Your task to perform on an android device: Clear all items from cart on ebay. Search for "macbook pro 13 inch" on ebay, select the first entry, add it to the cart, then select checkout. Image 0: 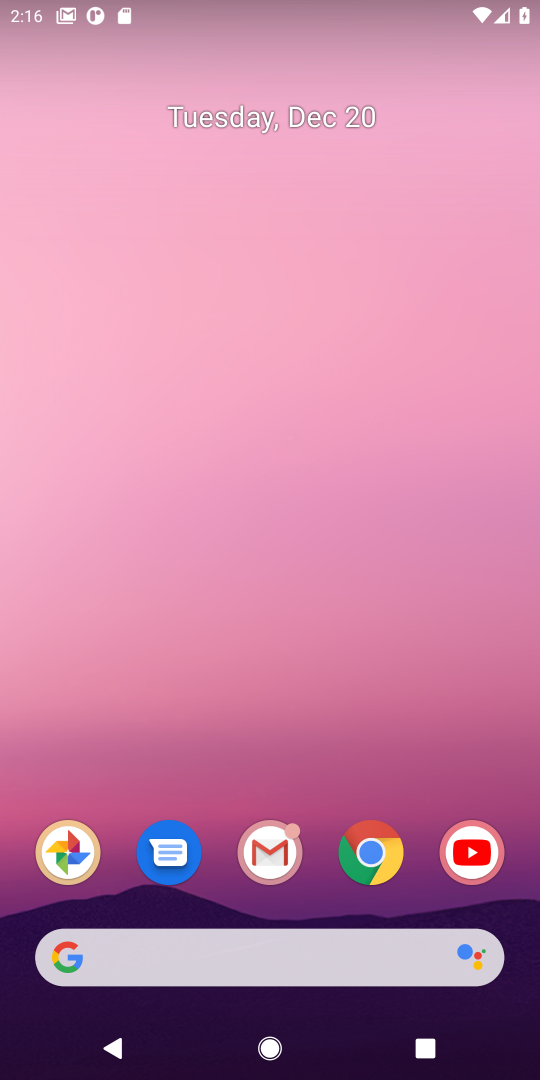
Step 0: click (373, 860)
Your task to perform on an android device: Clear all items from cart on ebay. Search for "macbook pro 13 inch" on ebay, select the first entry, add it to the cart, then select checkout. Image 1: 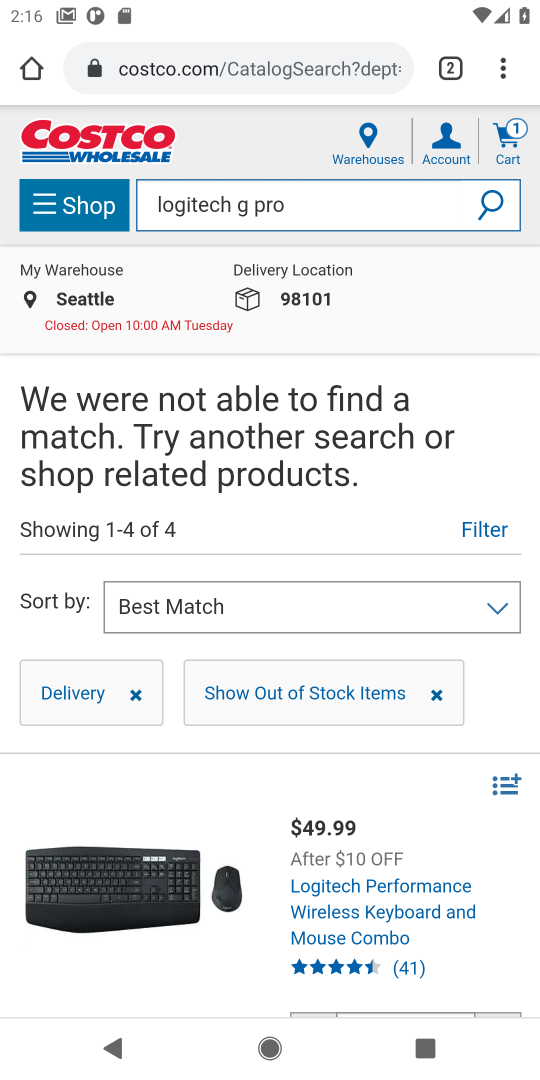
Step 1: click (212, 73)
Your task to perform on an android device: Clear all items from cart on ebay. Search for "macbook pro 13 inch" on ebay, select the first entry, add it to the cart, then select checkout. Image 2: 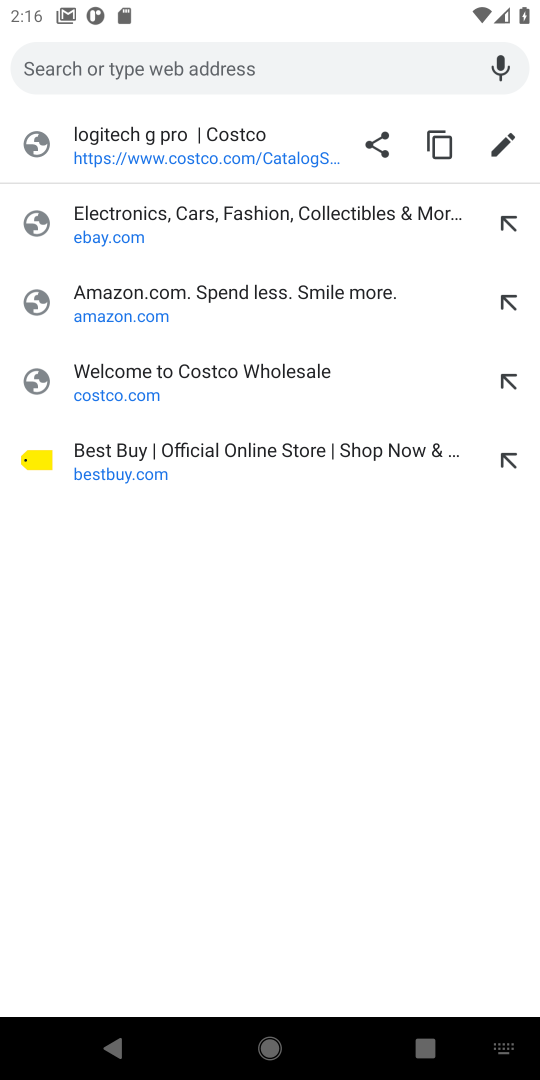
Step 2: click (120, 245)
Your task to perform on an android device: Clear all items from cart on ebay. Search for "macbook pro 13 inch" on ebay, select the first entry, add it to the cart, then select checkout. Image 3: 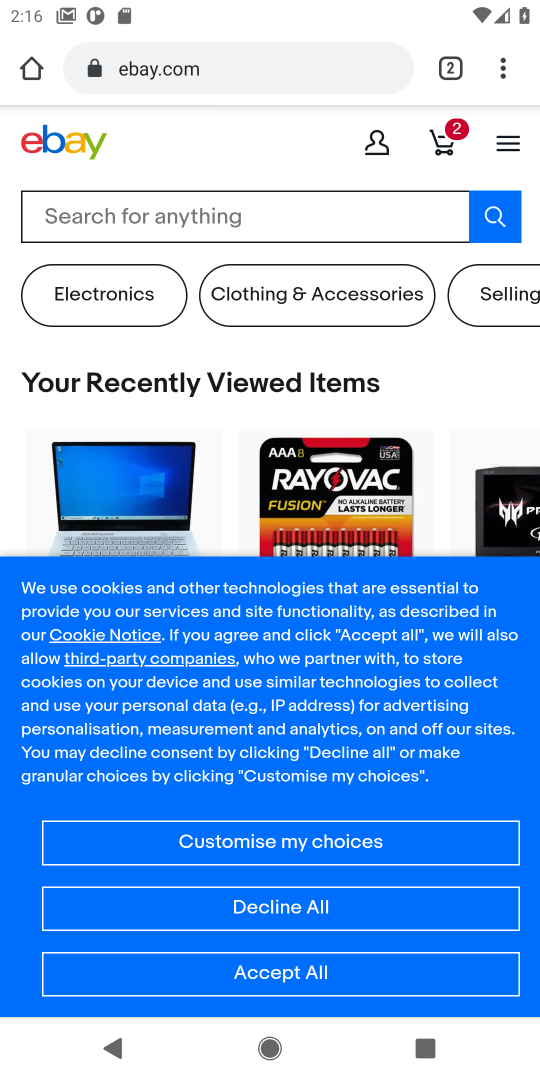
Step 3: click (445, 136)
Your task to perform on an android device: Clear all items from cart on ebay. Search for "macbook pro 13 inch" on ebay, select the first entry, add it to the cart, then select checkout. Image 4: 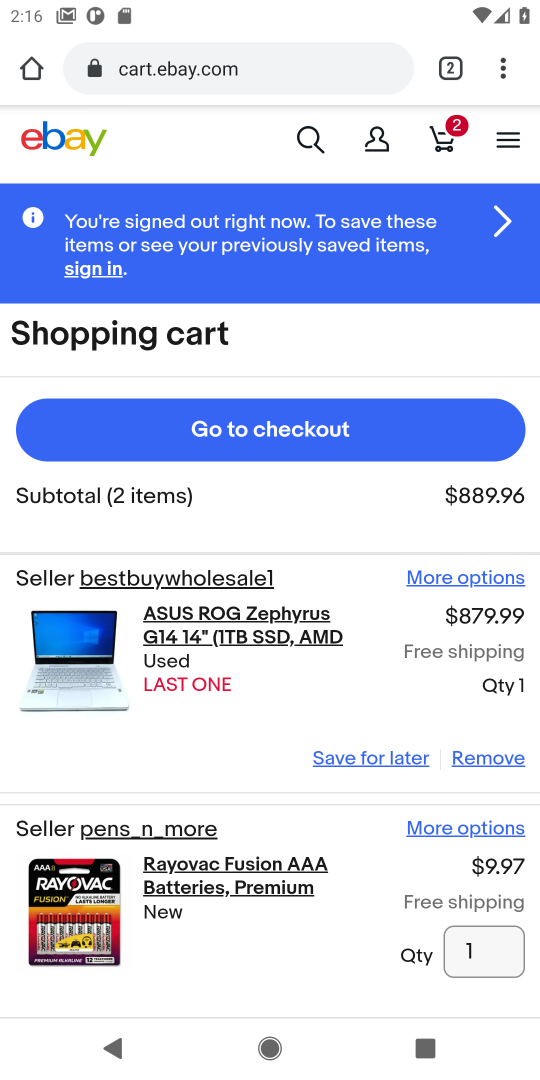
Step 4: click (486, 768)
Your task to perform on an android device: Clear all items from cart on ebay. Search for "macbook pro 13 inch" on ebay, select the first entry, add it to the cart, then select checkout. Image 5: 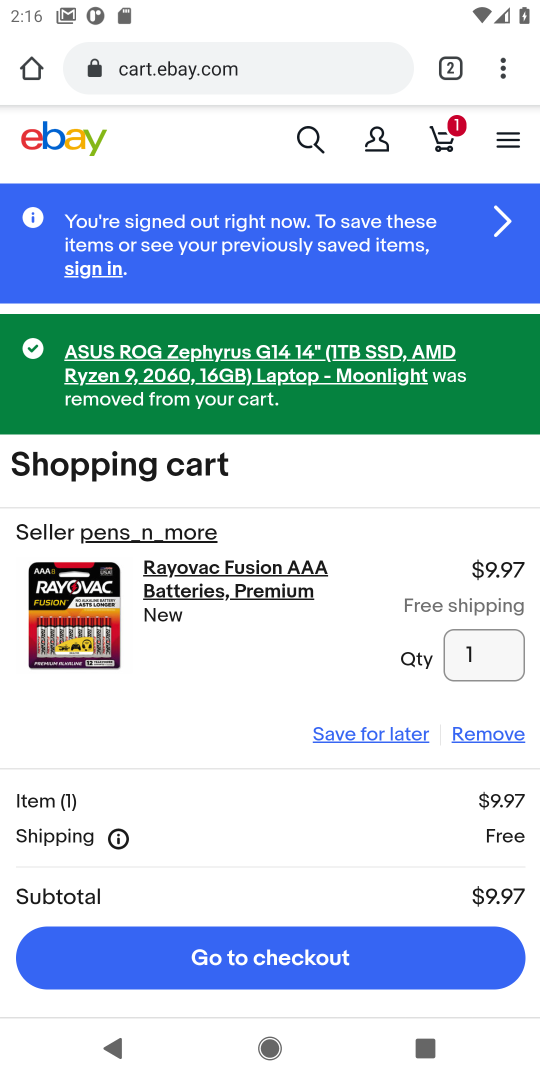
Step 5: click (486, 736)
Your task to perform on an android device: Clear all items from cart on ebay. Search for "macbook pro 13 inch" on ebay, select the first entry, add it to the cart, then select checkout. Image 6: 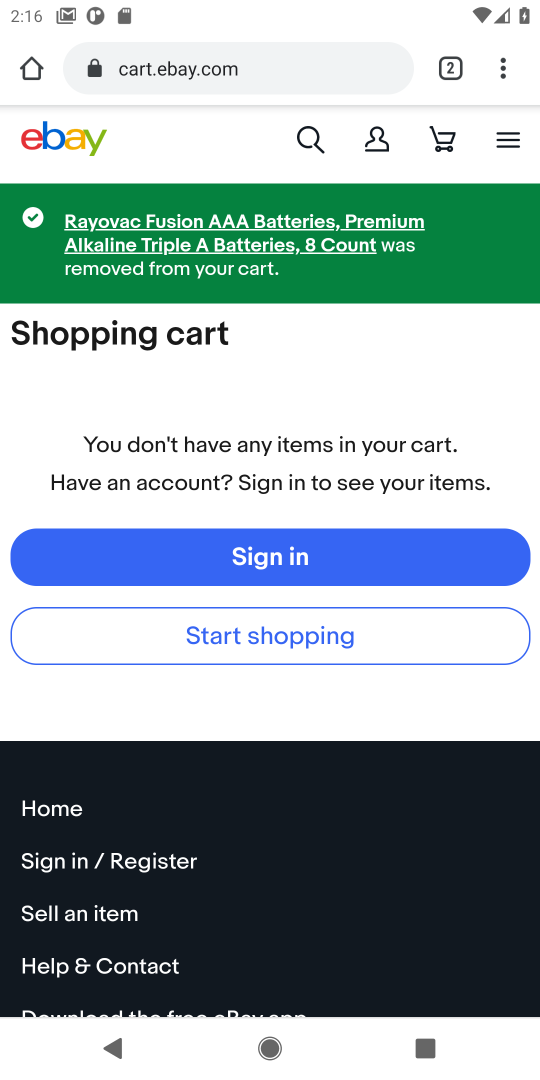
Step 6: click (307, 141)
Your task to perform on an android device: Clear all items from cart on ebay. Search for "macbook pro 13 inch" on ebay, select the first entry, add it to the cart, then select checkout. Image 7: 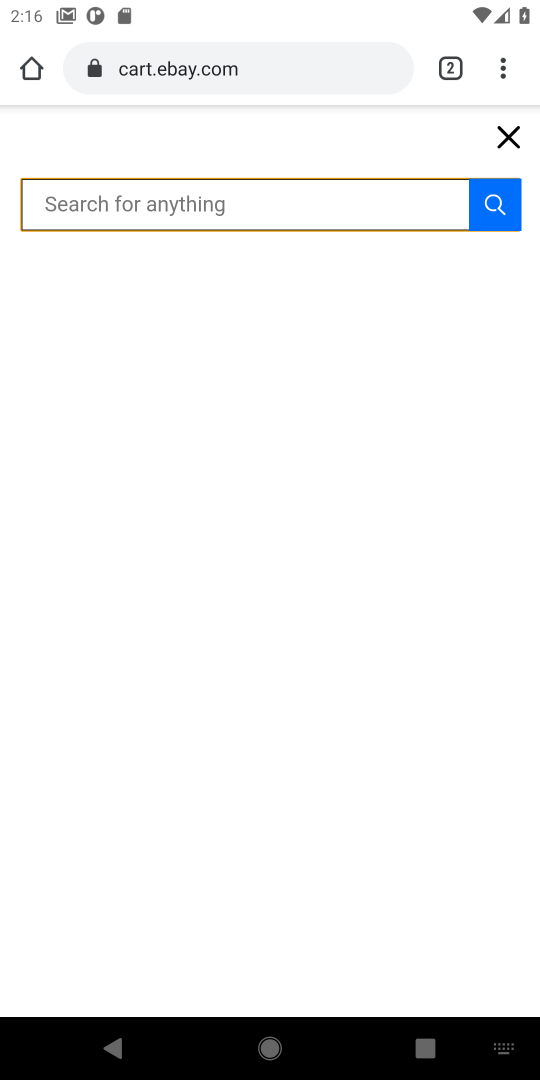
Step 7: type "macbook pro 13 inch"
Your task to perform on an android device: Clear all items from cart on ebay. Search for "macbook pro 13 inch" on ebay, select the first entry, add it to the cart, then select checkout. Image 8: 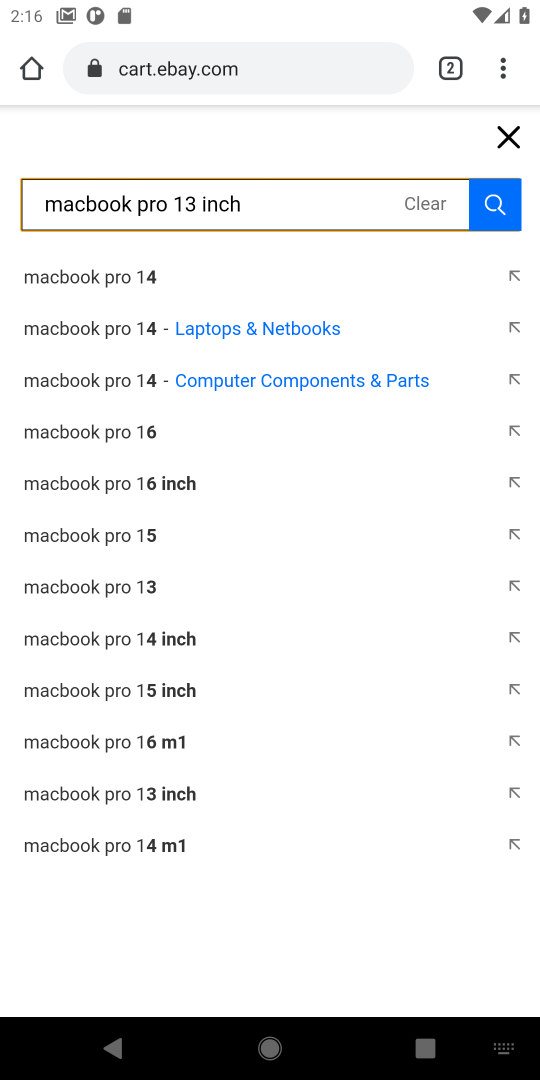
Step 8: click (488, 203)
Your task to perform on an android device: Clear all items from cart on ebay. Search for "macbook pro 13 inch" on ebay, select the first entry, add it to the cart, then select checkout. Image 9: 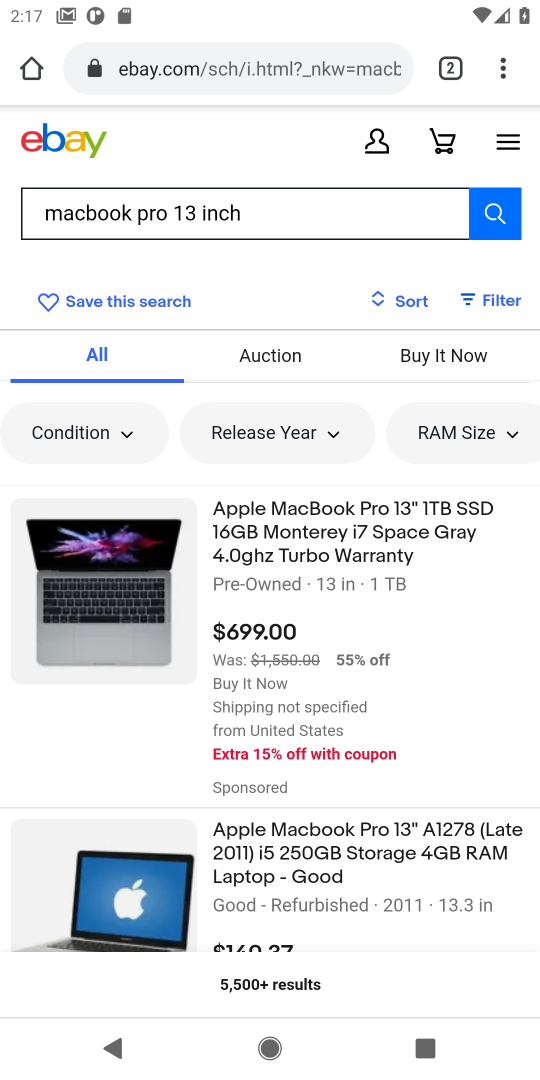
Step 9: click (264, 546)
Your task to perform on an android device: Clear all items from cart on ebay. Search for "macbook pro 13 inch" on ebay, select the first entry, add it to the cart, then select checkout. Image 10: 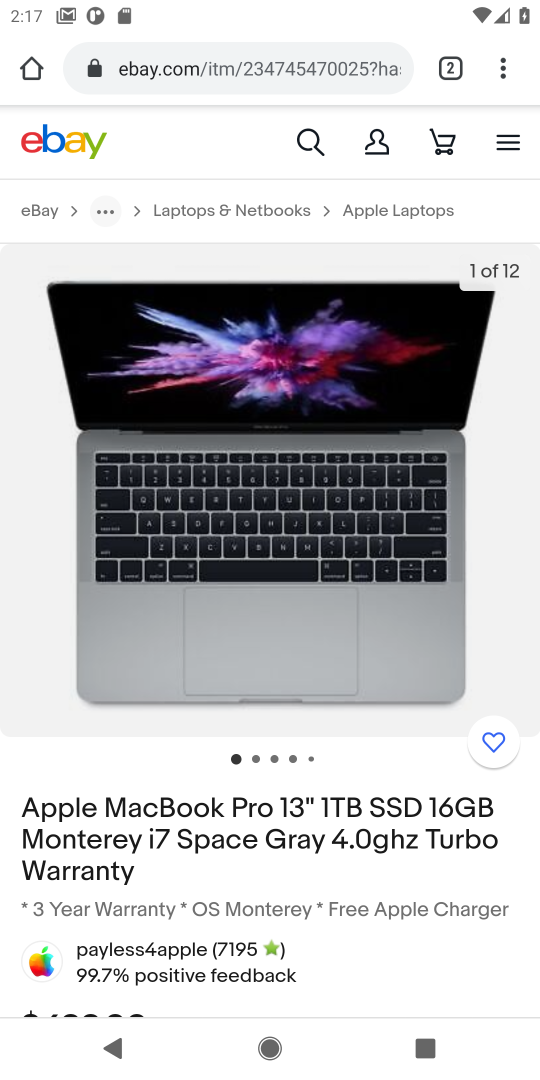
Step 10: drag from (245, 820) to (205, 505)
Your task to perform on an android device: Clear all items from cart on ebay. Search for "macbook pro 13 inch" on ebay, select the first entry, add it to the cart, then select checkout. Image 11: 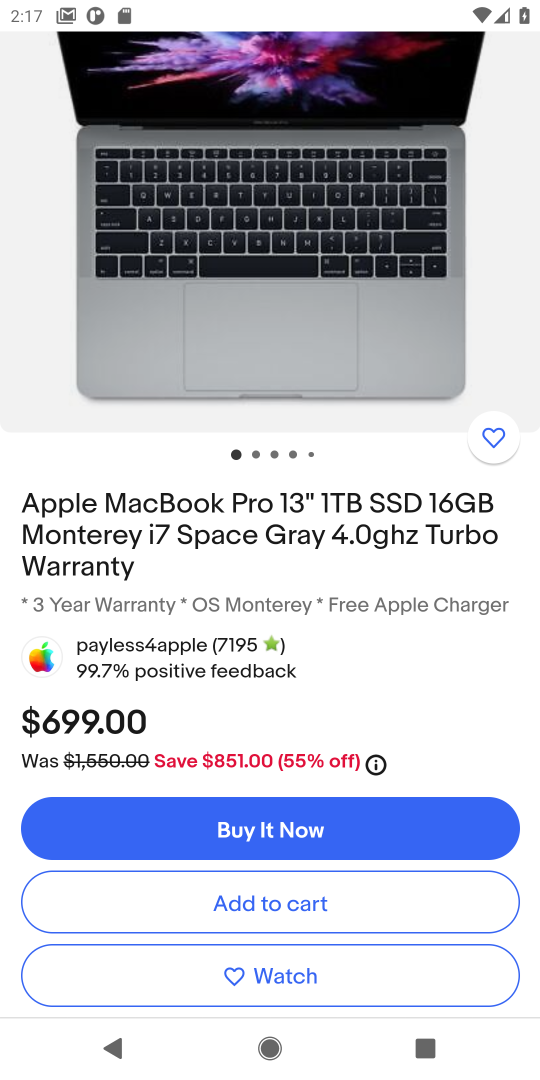
Step 11: click (228, 906)
Your task to perform on an android device: Clear all items from cart on ebay. Search for "macbook pro 13 inch" on ebay, select the first entry, add it to the cart, then select checkout. Image 12: 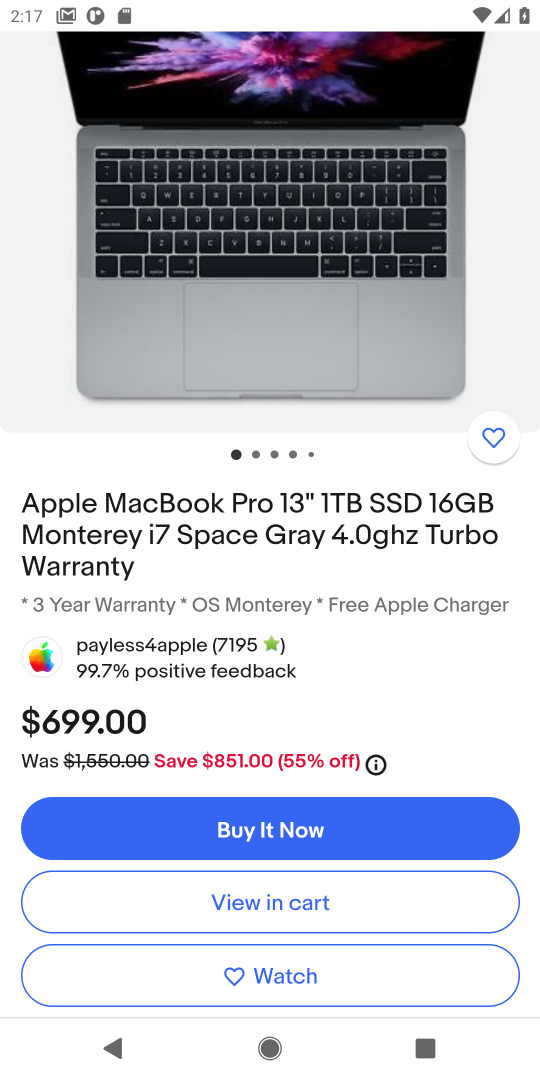
Step 12: click (266, 906)
Your task to perform on an android device: Clear all items from cart on ebay. Search for "macbook pro 13 inch" on ebay, select the first entry, add it to the cart, then select checkout. Image 13: 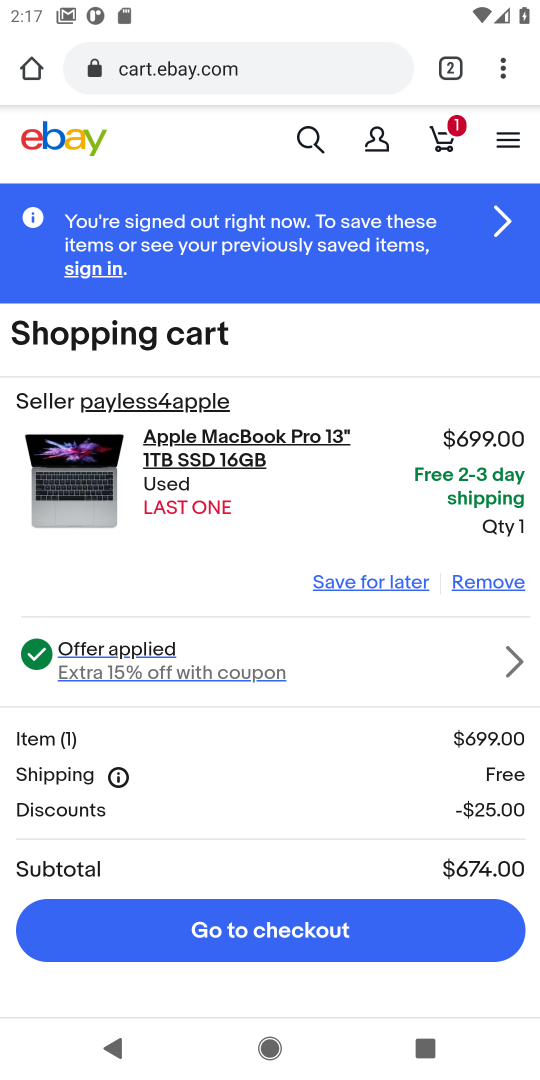
Step 13: click (262, 930)
Your task to perform on an android device: Clear all items from cart on ebay. Search for "macbook pro 13 inch" on ebay, select the first entry, add it to the cart, then select checkout. Image 14: 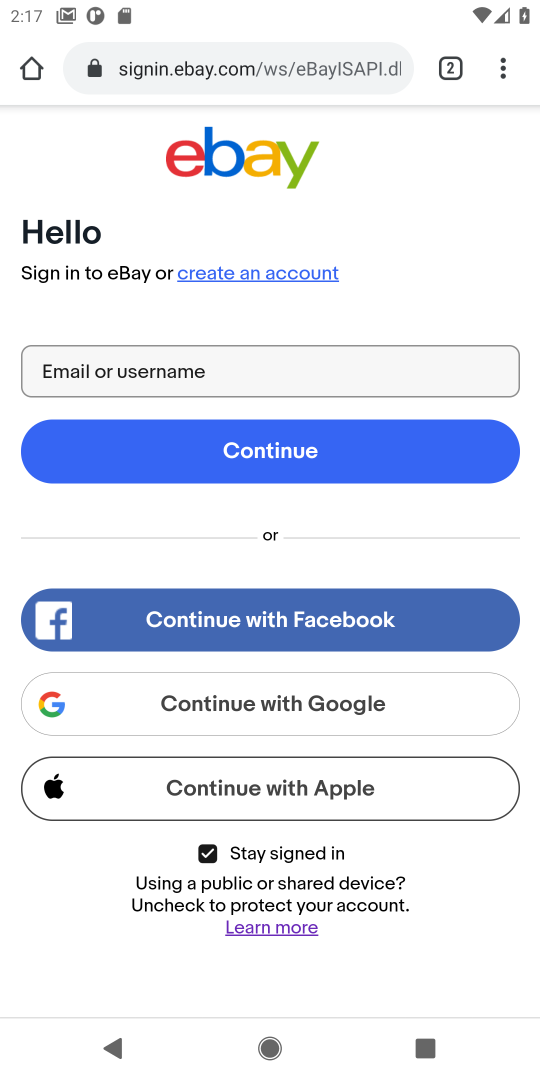
Step 14: task complete